Your task to perform on an android device: Clear all items from cart on amazon. Search for "dell alienware" on amazon, select the first entry, and add it to the cart. Image 0: 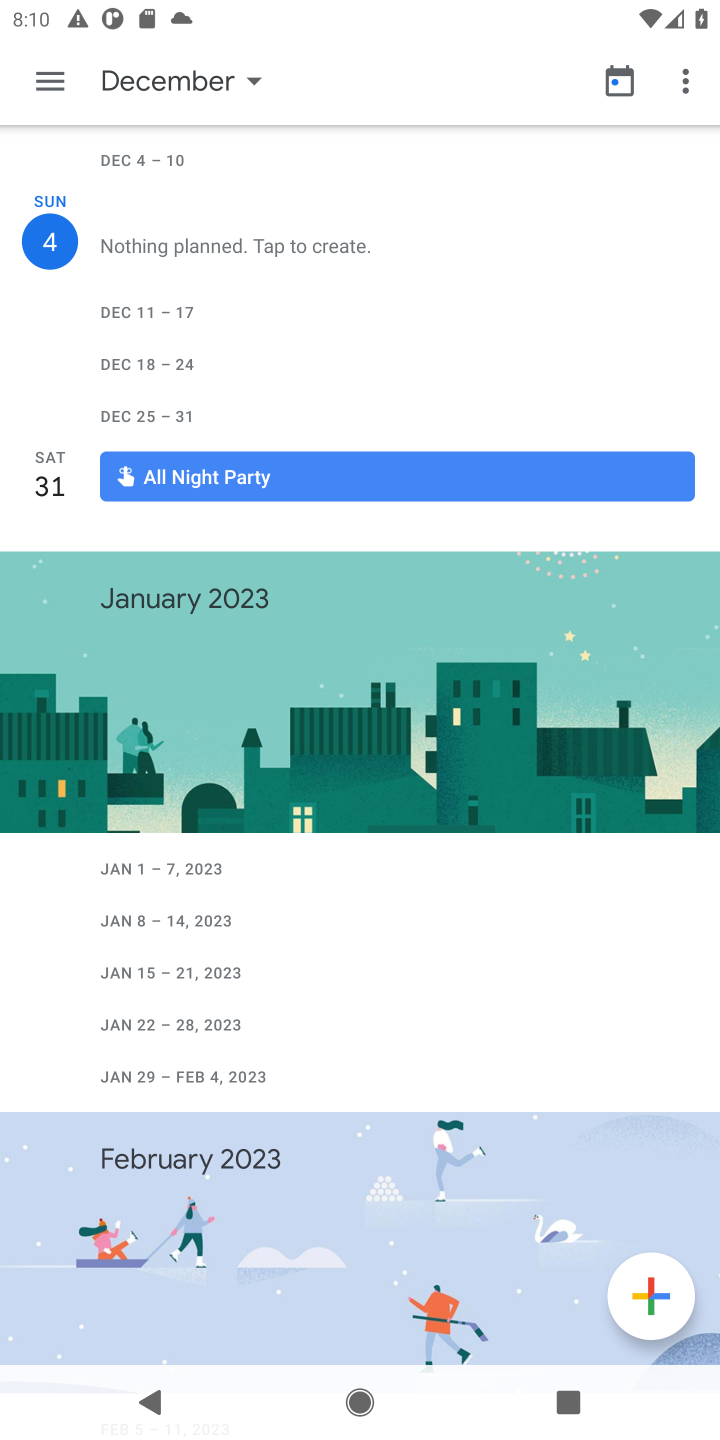
Step 0: click (510, 1145)
Your task to perform on an android device: Clear all items from cart on amazon. Search for "dell alienware" on amazon, select the first entry, and add it to the cart. Image 1: 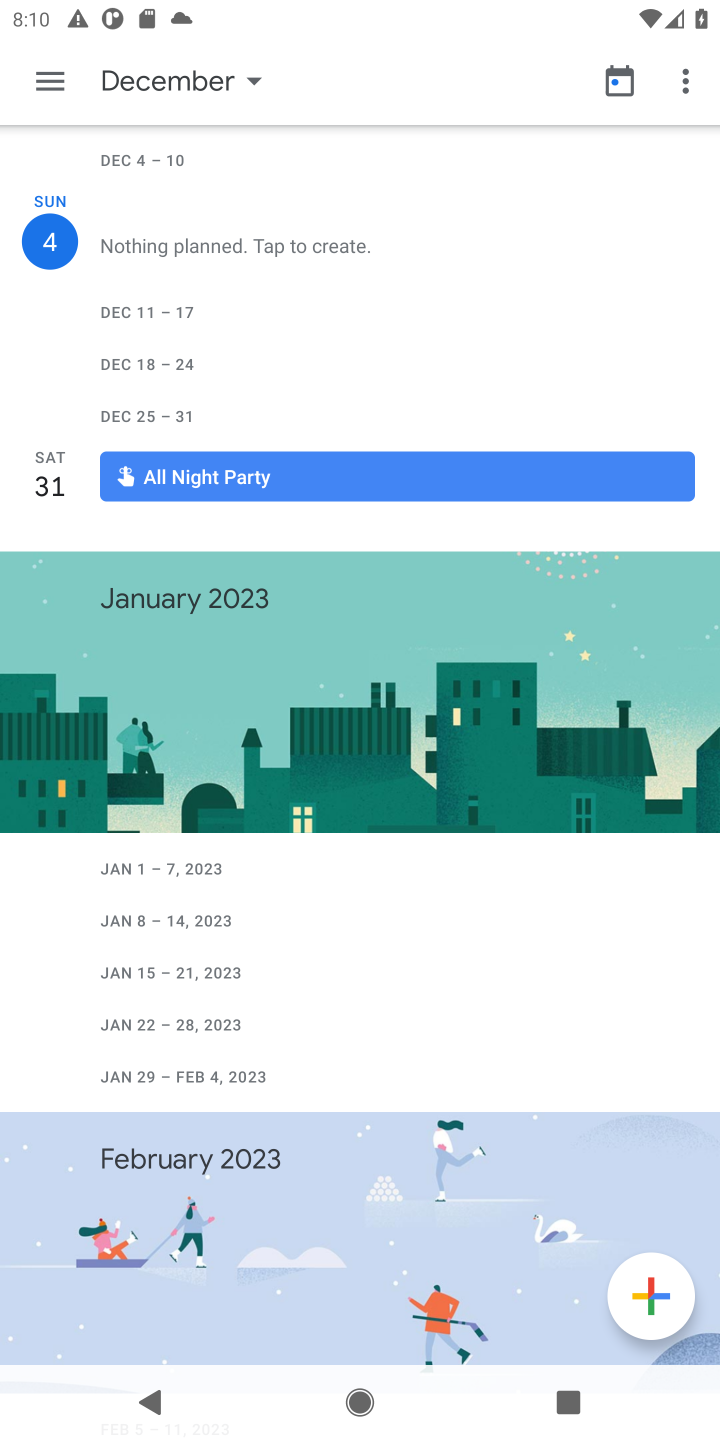
Step 1: press home button
Your task to perform on an android device: Clear all items from cart on amazon. Search for "dell alienware" on amazon, select the first entry, and add it to the cart. Image 2: 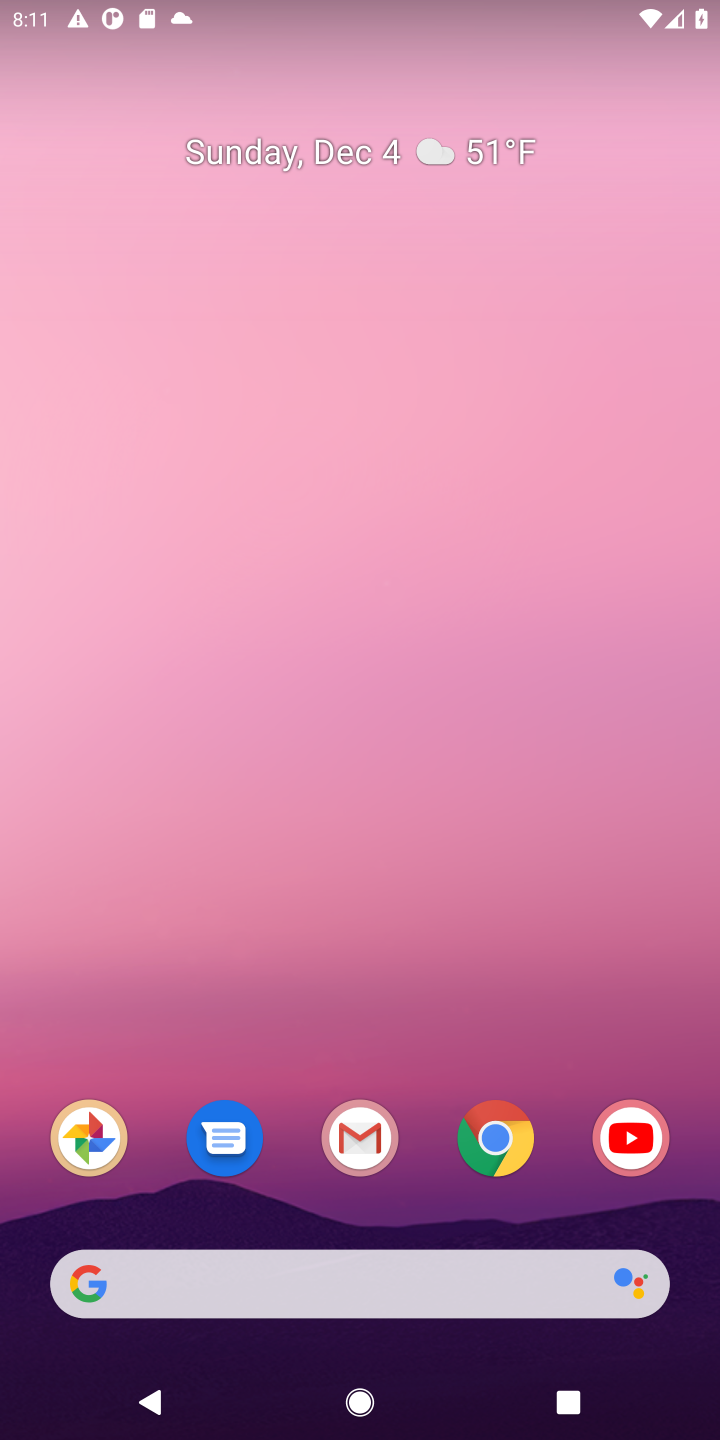
Step 2: click (496, 1159)
Your task to perform on an android device: Clear all items from cart on amazon. Search for "dell alienware" on amazon, select the first entry, and add it to the cart. Image 3: 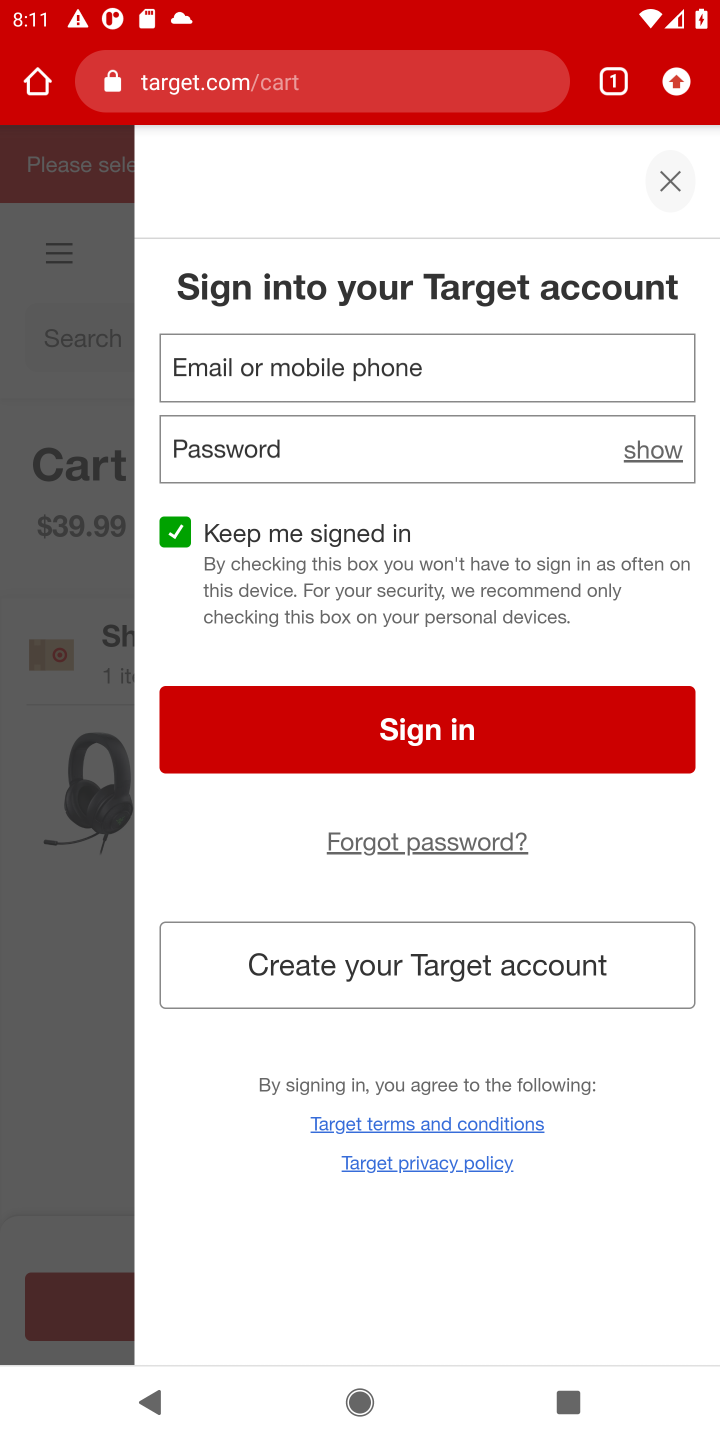
Step 3: click (406, 83)
Your task to perform on an android device: Clear all items from cart on amazon. Search for "dell alienware" on amazon, select the first entry, and add it to the cart. Image 4: 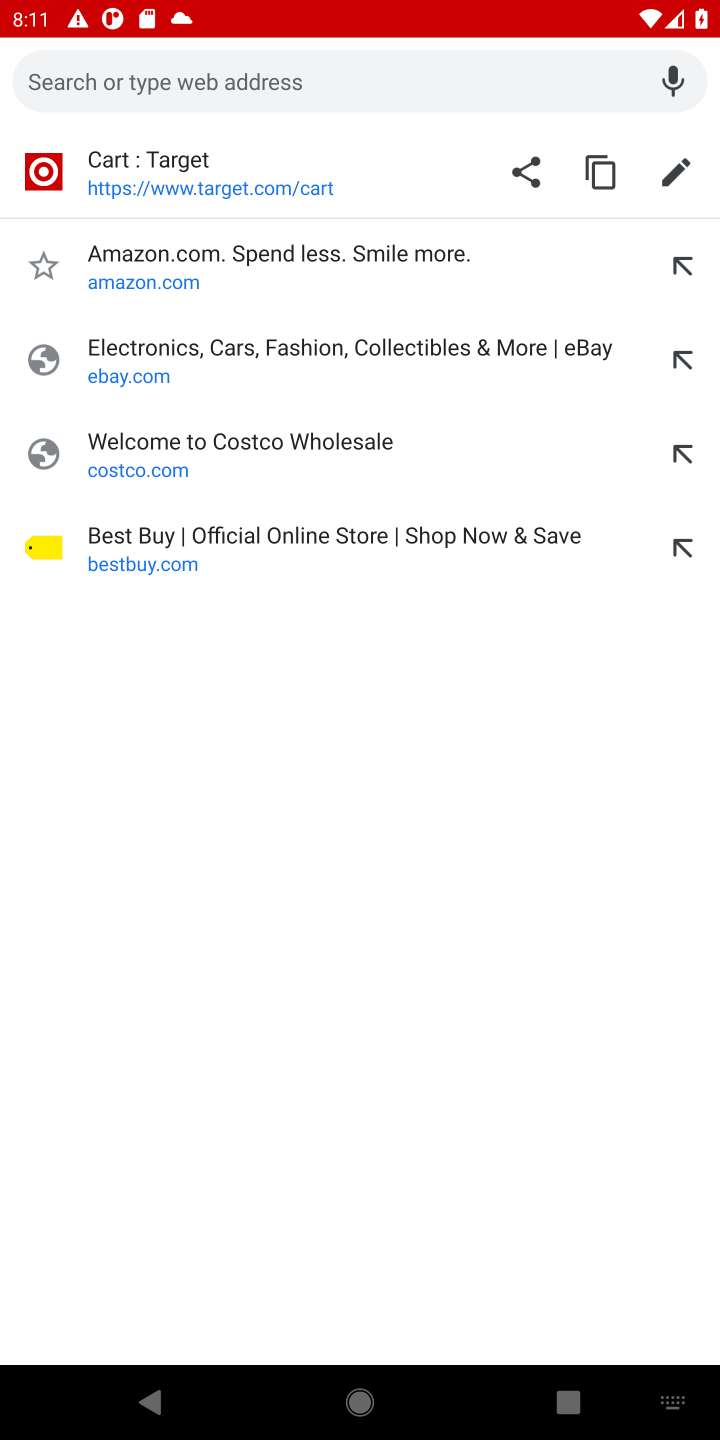
Step 4: click (209, 254)
Your task to perform on an android device: Clear all items from cart on amazon. Search for "dell alienware" on amazon, select the first entry, and add it to the cart. Image 5: 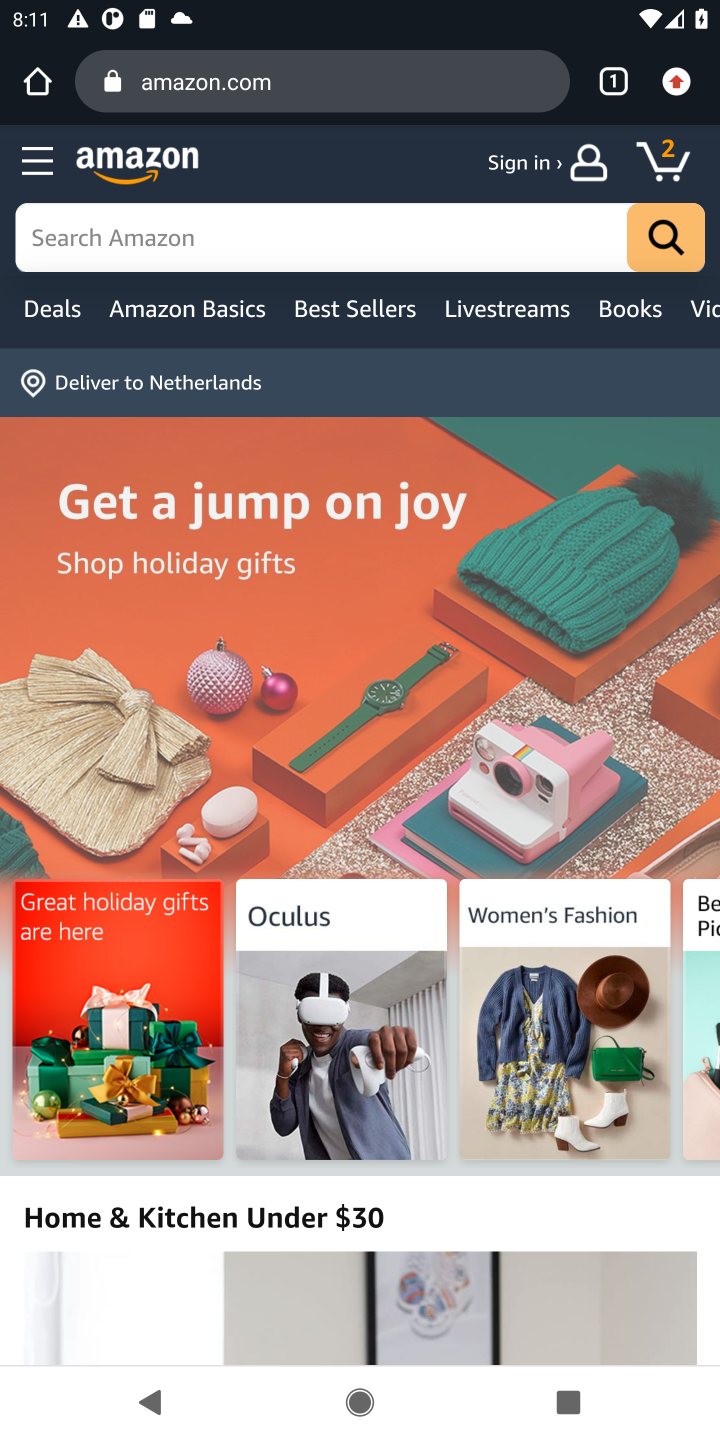
Step 5: click (670, 153)
Your task to perform on an android device: Clear all items from cart on amazon. Search for "dell alienware" on amazon, select the first entry, and add it to the cart. Image 6: 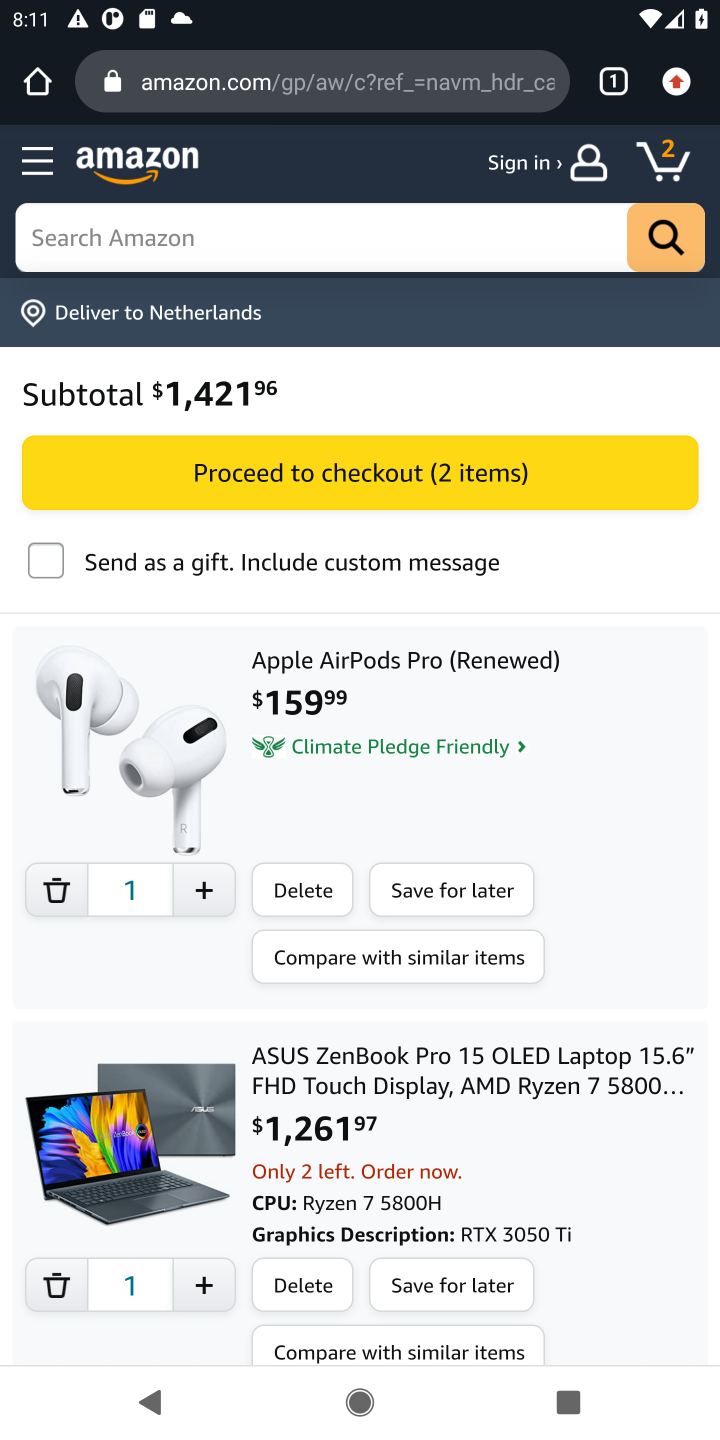
Step 6: click (298, 890)
Your task to perform on an android device: Clear all items from cart on amazon. Search for "dell alienware" on amazon, select the first entry, and add it to the cart. Image 7: 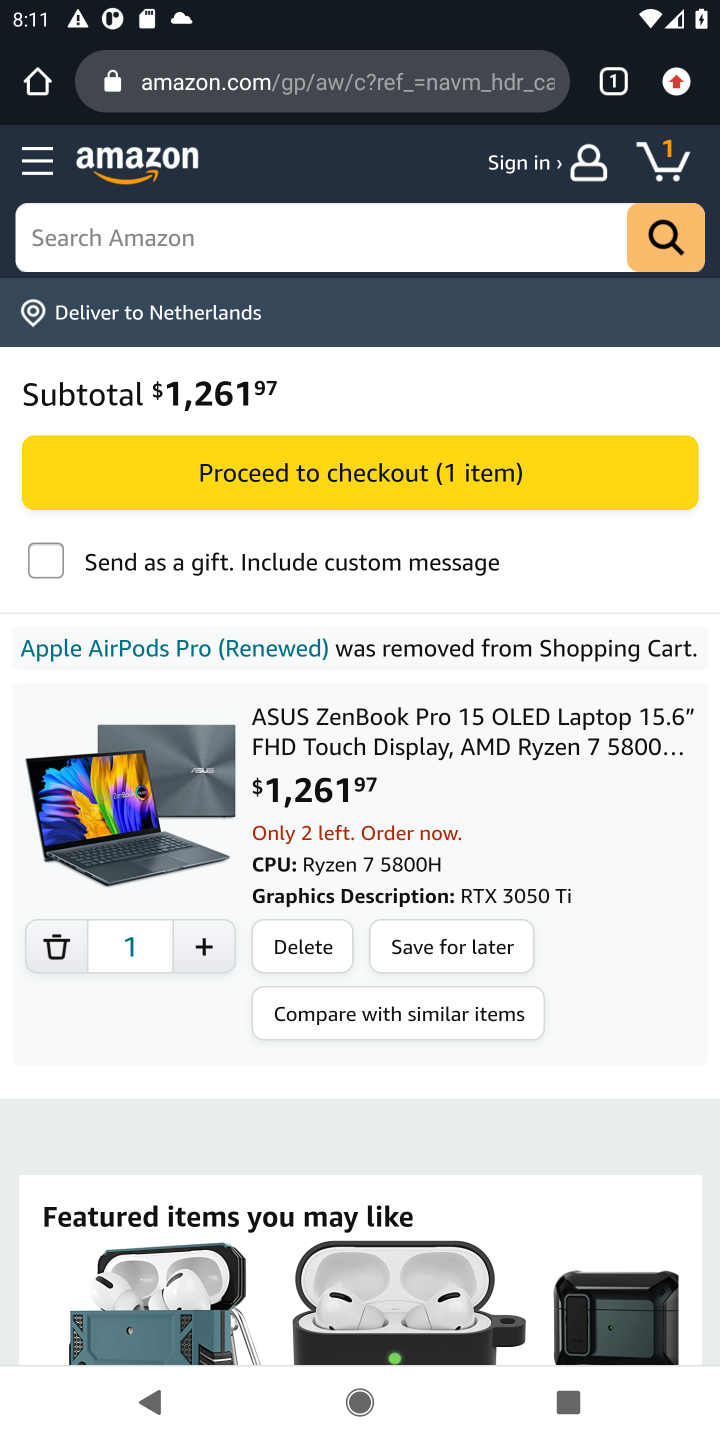
Step 7: click (312, 947)
Your task to perform on an android device: Clear all items from cart on amazon. Search for "dell alienware" on amazon, select the first entry, and add it to the cart. Image 8: 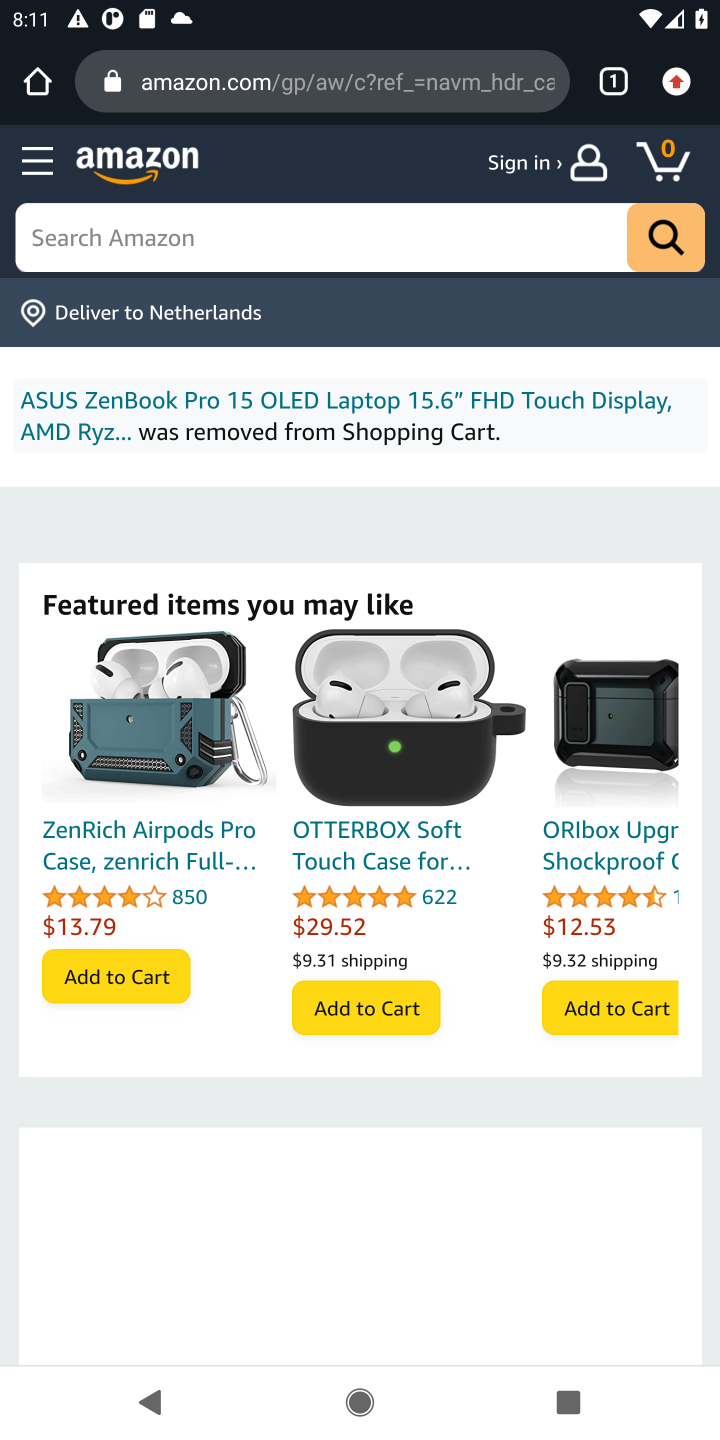
Step 8: click (403, 250)
Your task to perform on an android device: Clear all items from cart on amazon. Search for "dell alienware" on amazon, select the first entry, and add it to the cart. Image 9: 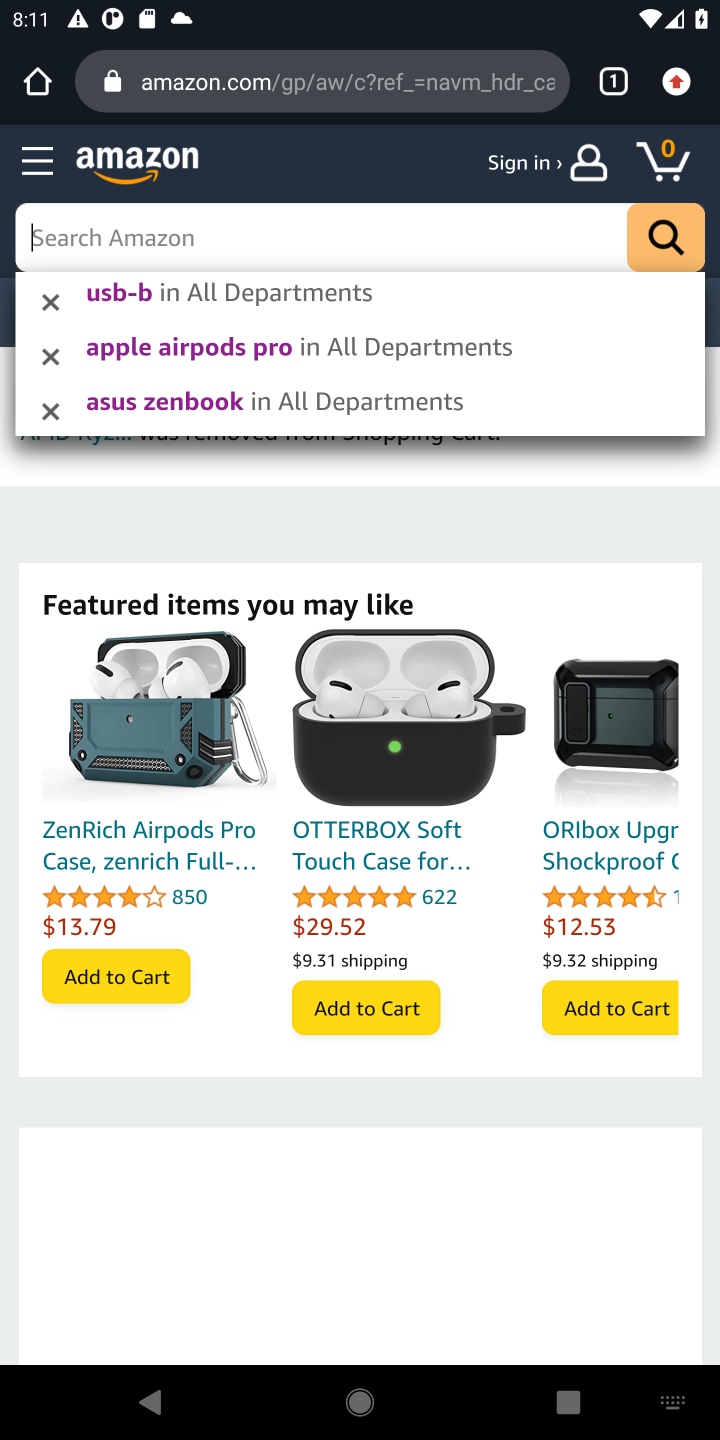
Step 9: type "dell alienware"
Your task to perform on an android device: Clear all items from cart on amazon. Search for "dell alienware" on amazon, select the first entry, and add it to the cart. Image 10: 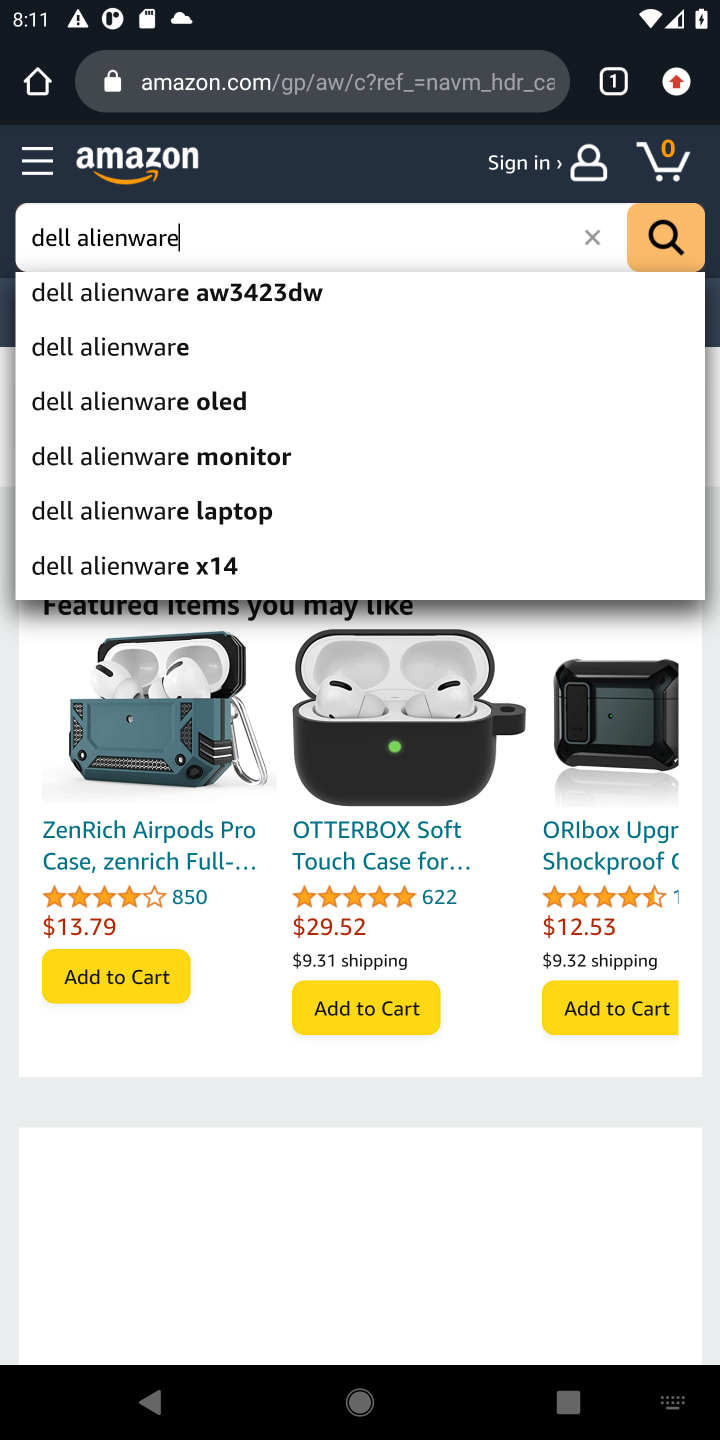
Step 10: press enter
Your task to perform on an android device: Clear all items from cart on amazon. Search for "dell alienware" on amazon, select the first entry, and add it to the cart. Image 11: 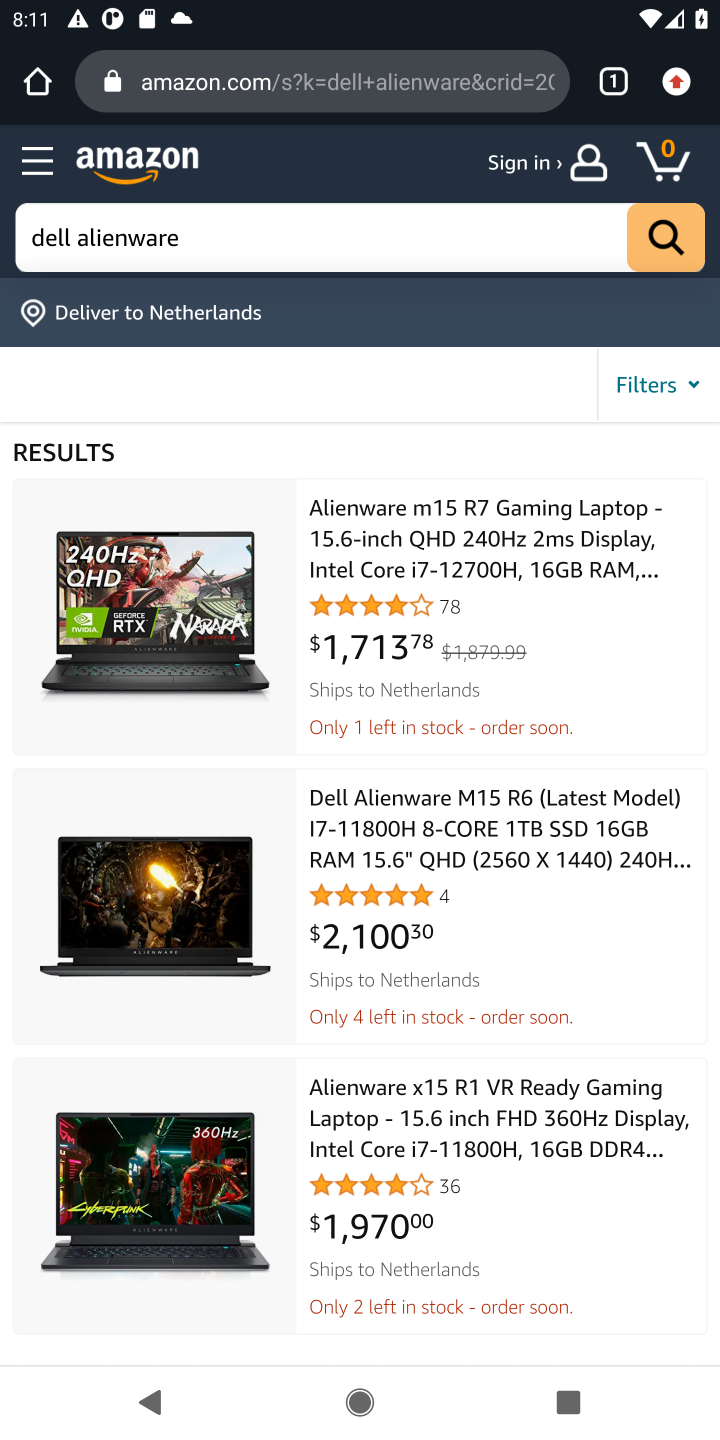
Step 11: click (147, 866)
Your task to perform on an android device: Clear all items from cart on amazon. Search for "dell alienware" on amazon, select the first entry, and add it to the cart. Image 12: 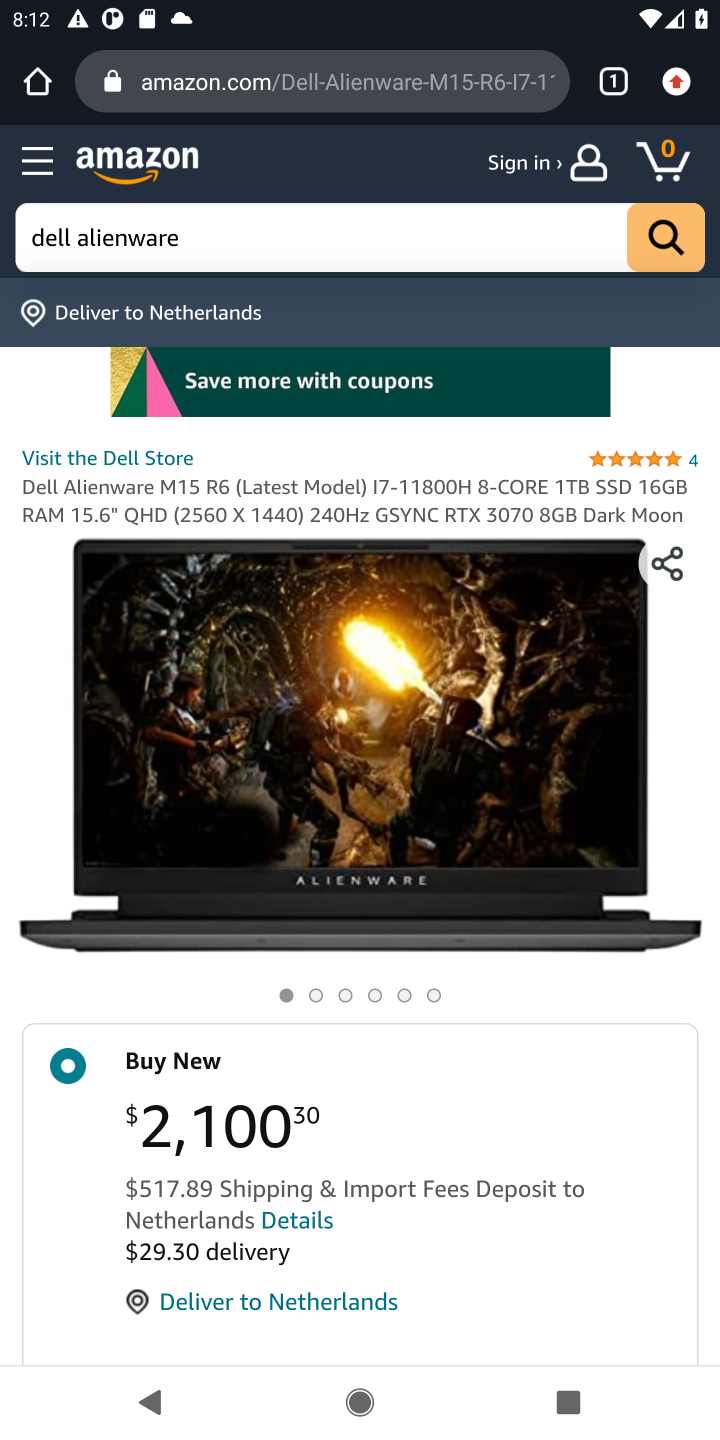
Step 12: drag from (534, 967) to (683, 235)
Your task to perform on an android device: Clear all items from cart on amazon. Search for "dell alienware" on amazon, select the first entry, and add it to the cart. Image 13: 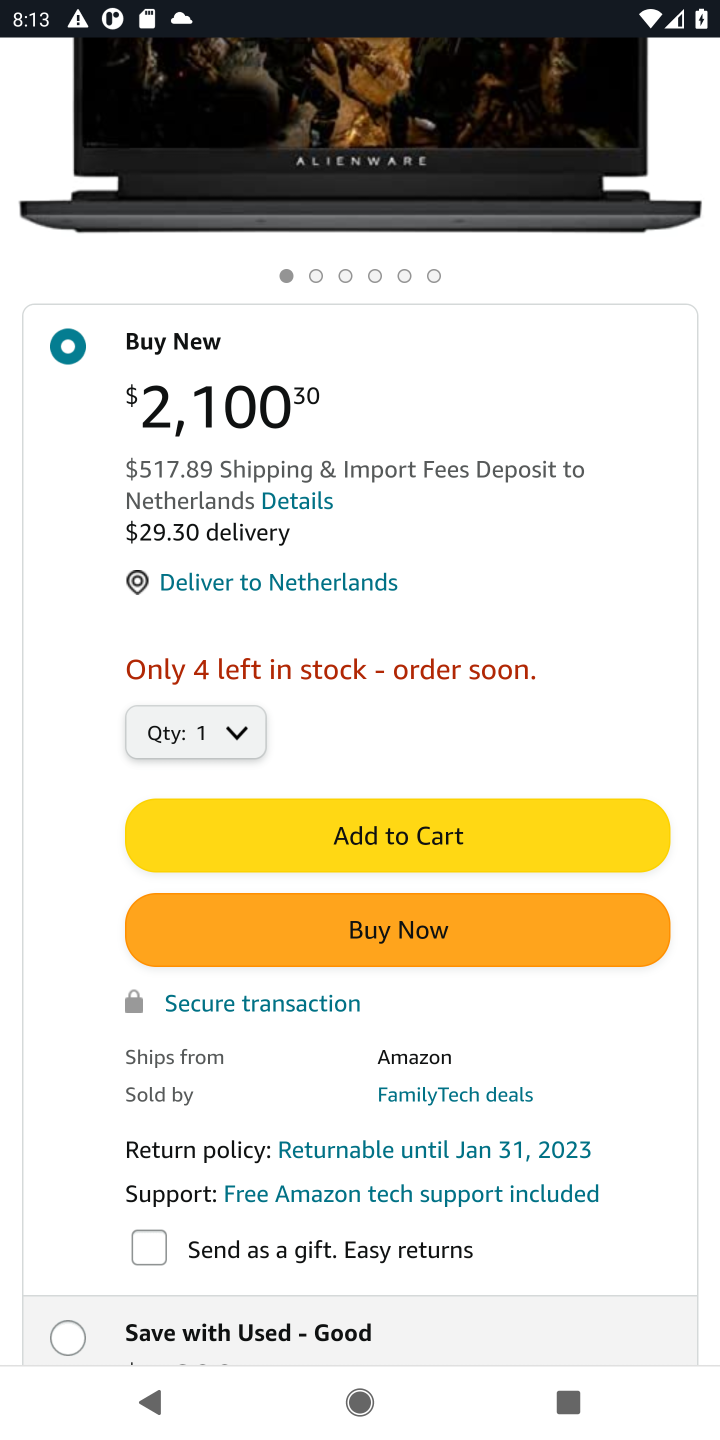
Step 13: click (425, 849)
Your task to perform on an android device: Clear all items from cart on amazon. Search for "dell alienware" on amazon, select the first entry, and add it to the cart. Image 14: 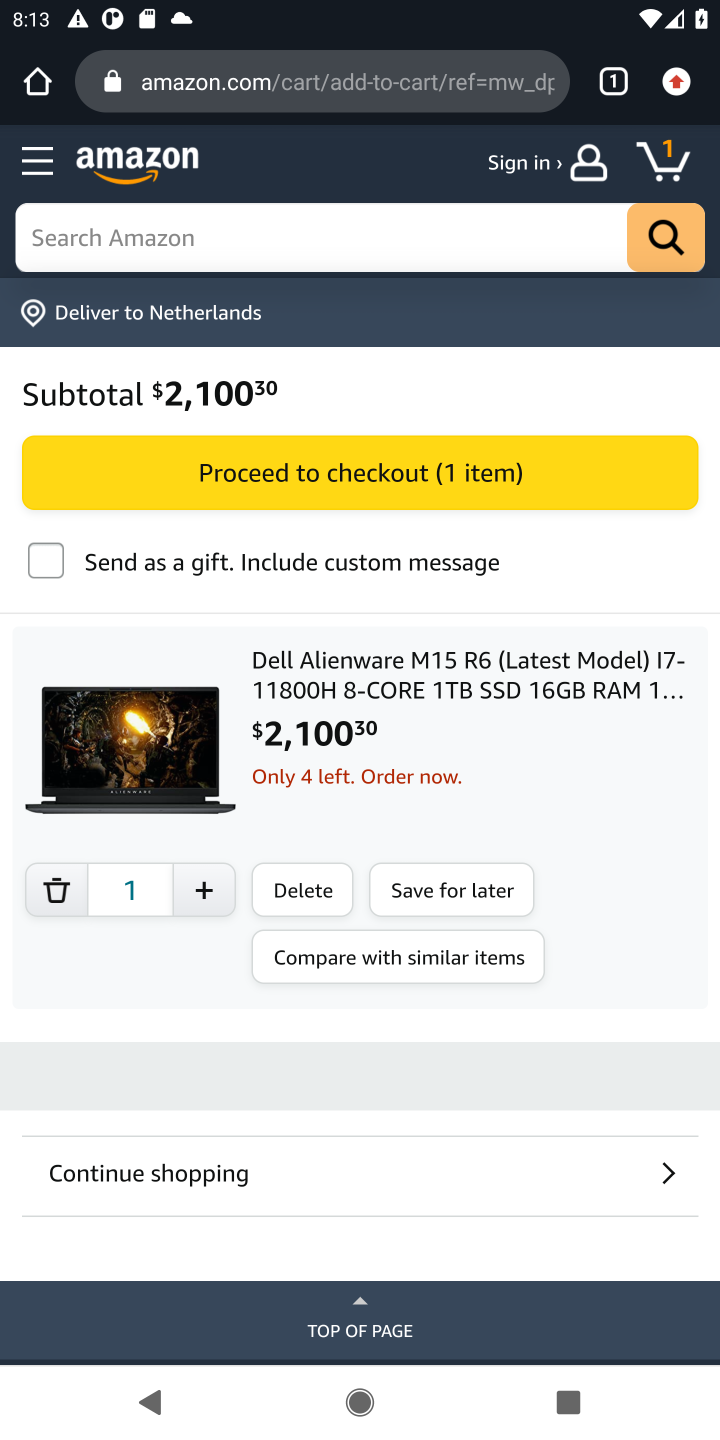
Step 14: task complete